Your task to perform on an android device: Do I have any events tomorrow? Image 0: 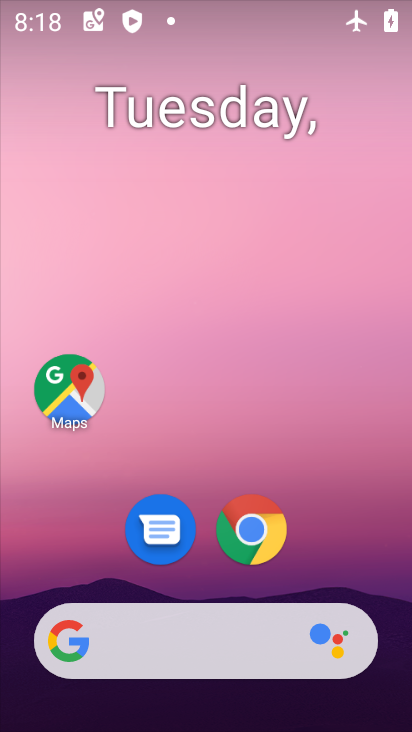
Step 0: drag from (264, 659) to (246, 106)
Your task to perform on an android device: Do I have any events tomorrow? Image 1: 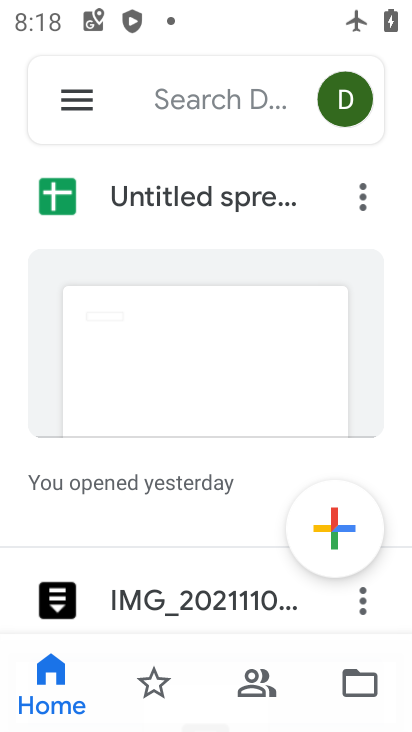
Step 1: press home button
Your task to perform on an android device: Do I have any events tomorrow? Image 2: 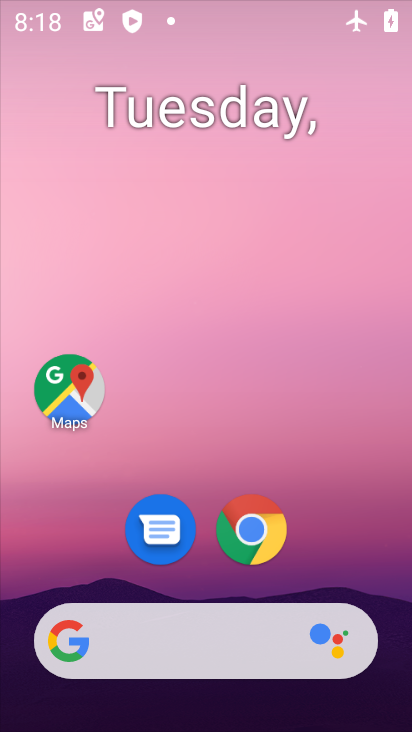
Step 2: drag from (244, 665) to (273, 139)
Your task to perform on an android device: Do I have any events tomorrow? Image 3: 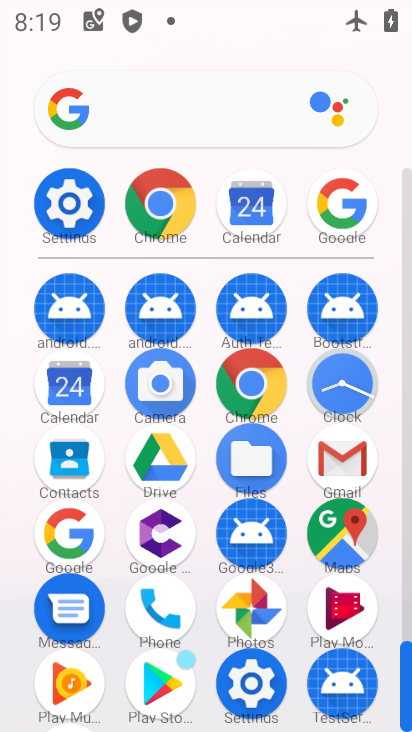
Step 3: drag from (172, 510) to (206, 245)
Your task to perform on an android device: Do I have any events tomorrow? Image 4: 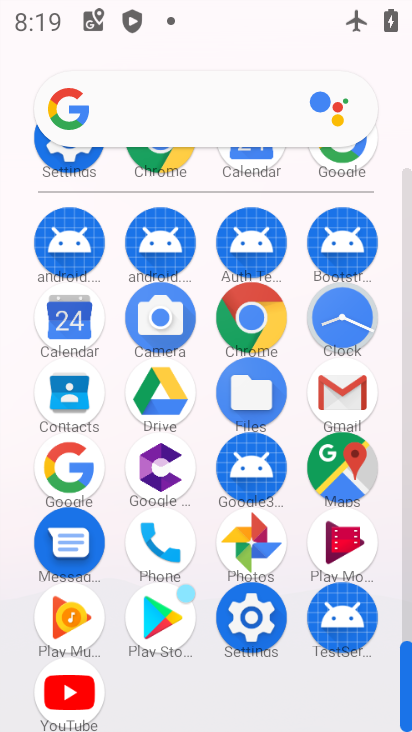
Step 4: click (62, 335)
Your task to perform on an android device: Do I have any events tomorrow? Image 5: 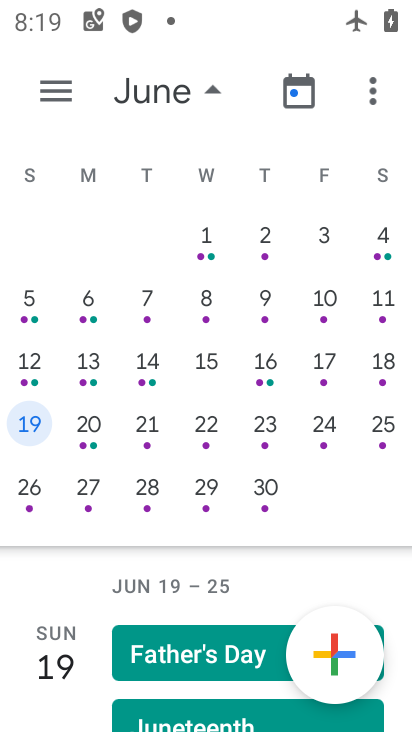
Step 5: drag from (70, 440) to (0, 632)
Your task to perform on an android device: Do I have any events tomorrow? Image 6: 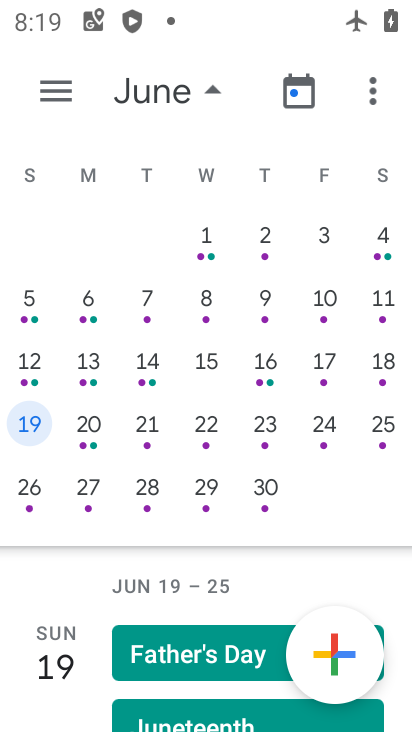
Step 6: drag from (63, 450) to (404, 533)
Your task to perform on an android device: Do I have any events tomorrow? Image 7: 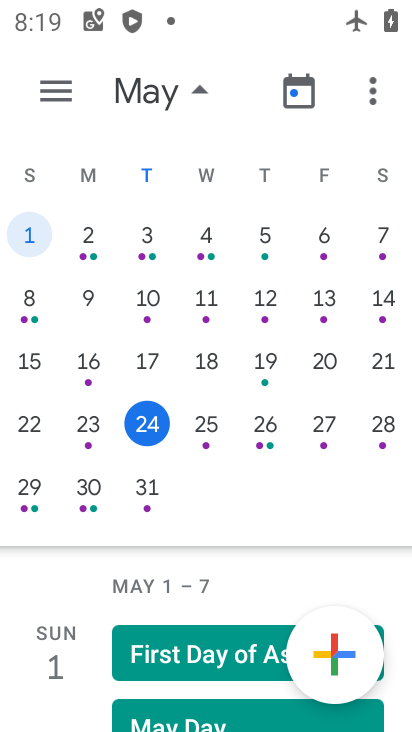
Step 7: click (259, 442)
Your task to perform on an android device: Do I have any events tomorrow? Image 8: 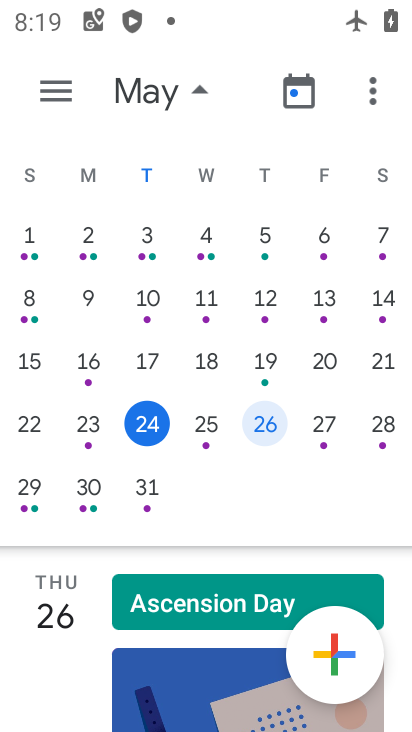
Step 8: task complete